Your task to perform on an android device: Open settings Image 0: 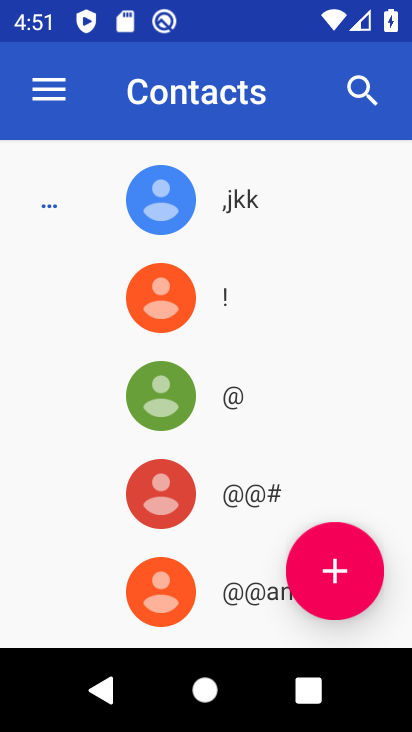
Step 0: press home button
Your task to perform on an android device: Open settings Image 1: 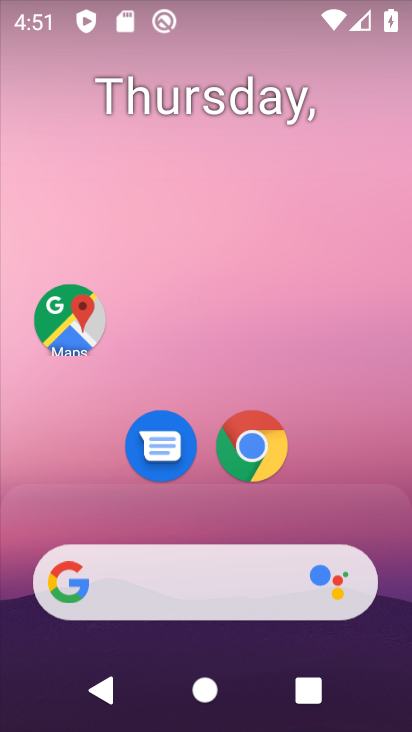
Step 1: drag from (71, 564) to (227, 101)
Your task to perform on an android device: Open settings Image 2: 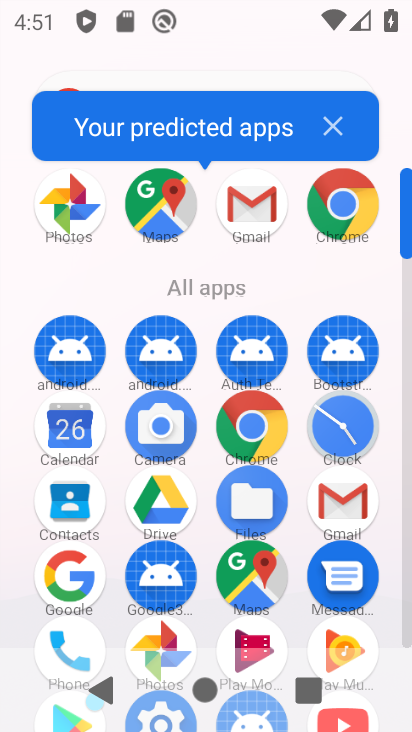
Step 2: drag from (258, 540) to (327, 222)
Your task to perform on an android device: Open settings Image 3: 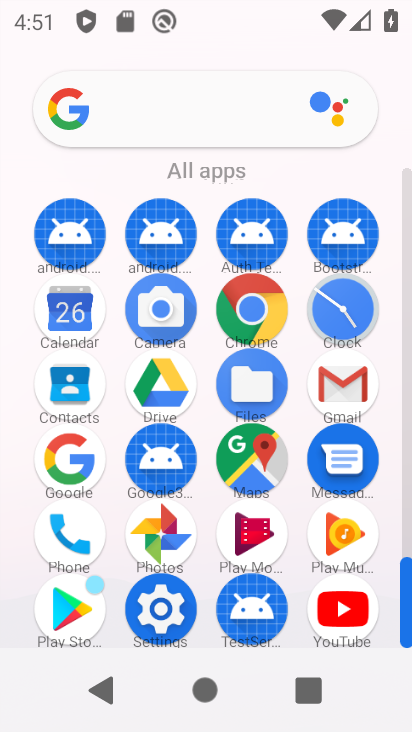
Step 3: click (146, 621)
Your task to perform on an android device: Open settings Image 4: 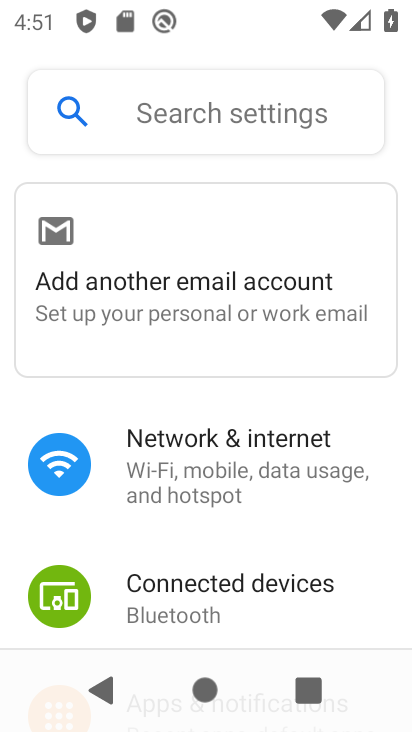
Step 4: task complete